Your task to perform on an android device: turn on improve location accuracy Image 0: 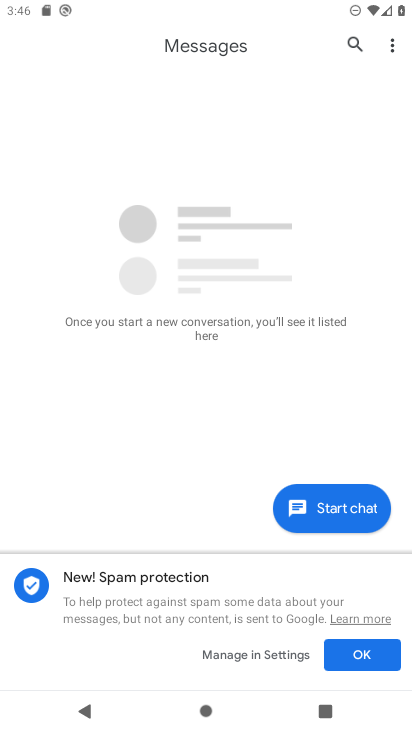
Step 0: press home button
Your task to perform on an android device: turn on improve location accuracy Image 1: 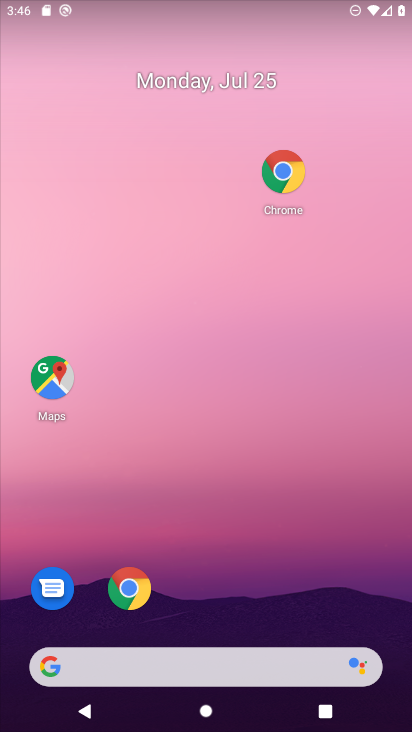
Step 1: drag from (257, 728) to (175, 234)
Your task to perform on an android device: turn on improve location accuracy Image 2: 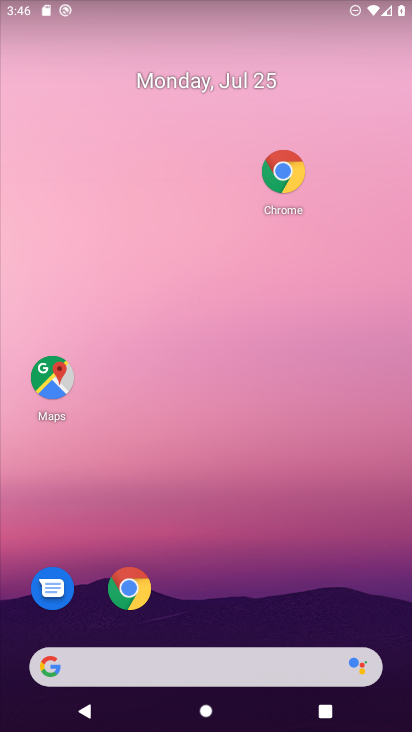
Step 2: drag from (253, 659) to (193, 187)
Your task to perform on an android device: turn on improve location accuracy Image 3: 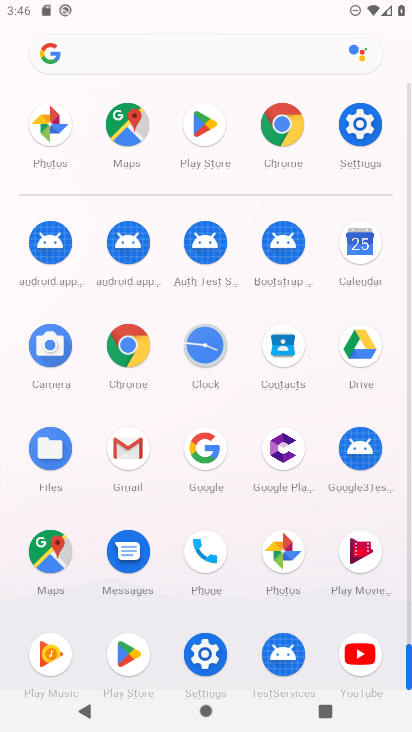
Step 3: click (347, 123)
Your task to perform on an android device: turn on improve location accuracy Image 4: 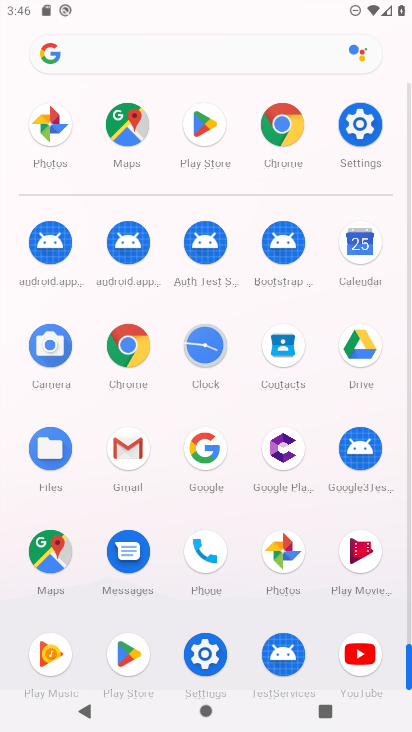
Step 4: click (347, 123)
Your task to perform on an android device: turn on improve location accuracy Image 5: 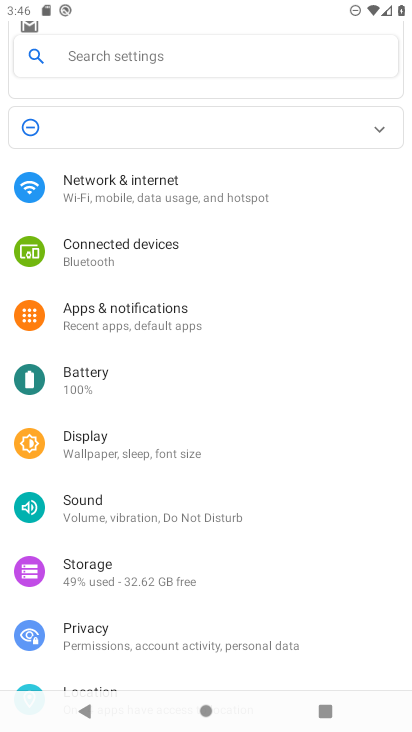
Step 5: drag from (190, 565) to (202, 138)
Your task to perform on an android device: turn on improve location accuracy Image 6: 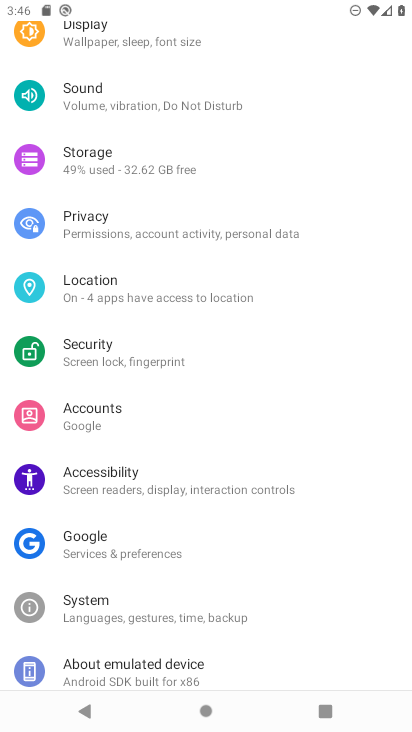
Step 6: drag from (202, 598) to (202, 251)
Your task to perform on an android device: turn on improve location accuracy Image 7: 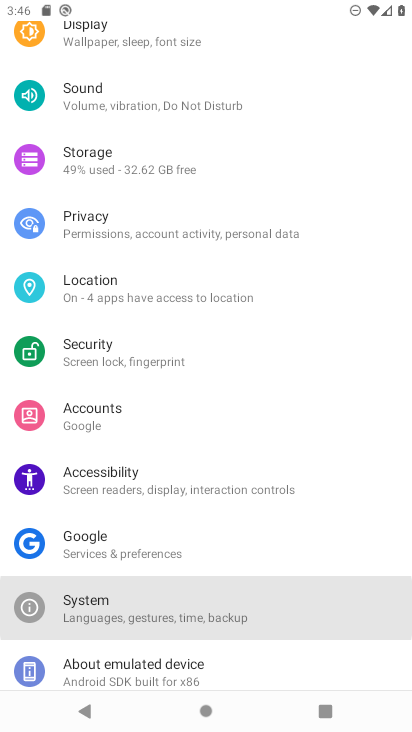
Step 7: drag from (253, 657) to (216, 318)
Your task to perform on an android device: turn on improve location accuracy Image 8: 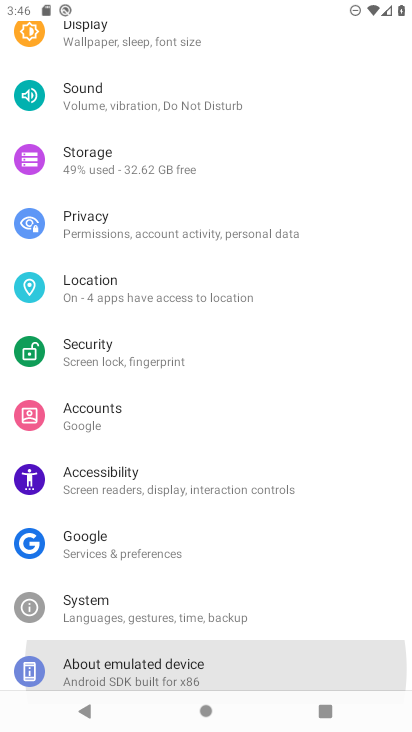
Step 8: drag from (196, 655) to (168, 156)
Your task to perform on an android device: turn on improve location accuracy Image 9: 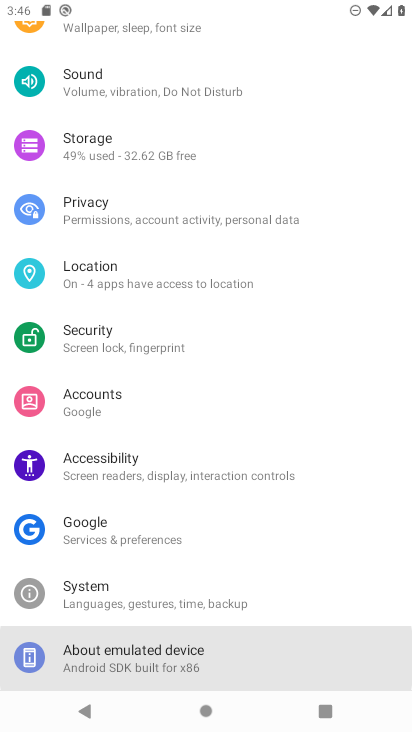
Step 9: drag from (151, 525) to (117, 237)
Your task to perform on an android device: turn on improve location accuracy Image 10: 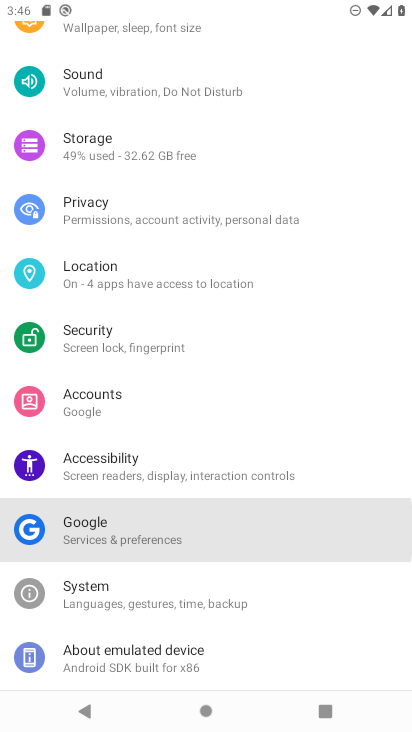
Step 10: drag from (130, 437) to (142, 376)
Your task to perform on an android device: turn on improve location accuracy Image 11: 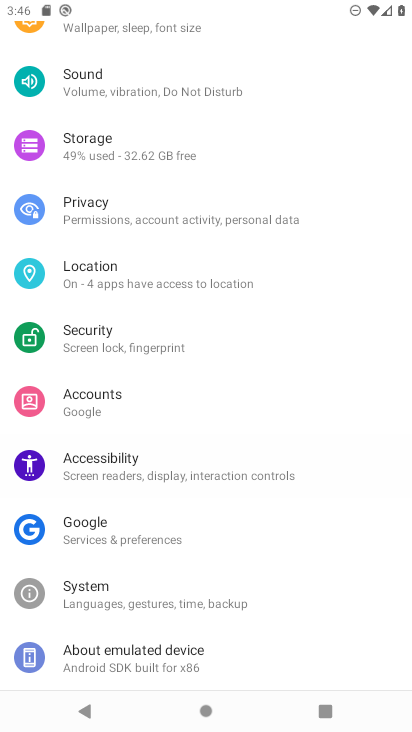
Step 11: click (113, 265)
Your task to perform on an android device: turn on improve location accuracy Image 12: 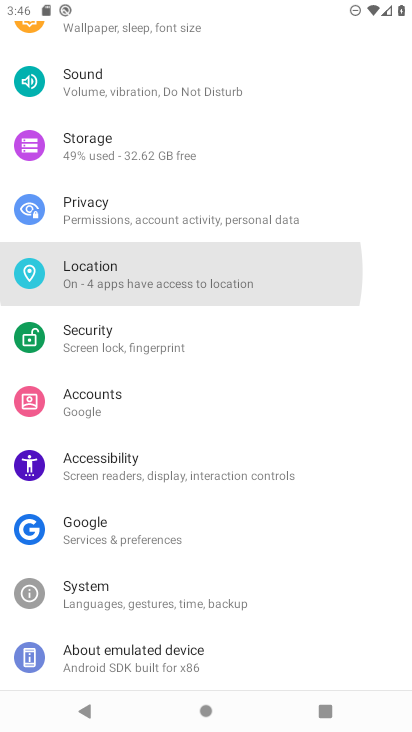
Step 12: click (109, 269)
Your task to perform on an android device: turn on improve location accuracy Image 13: 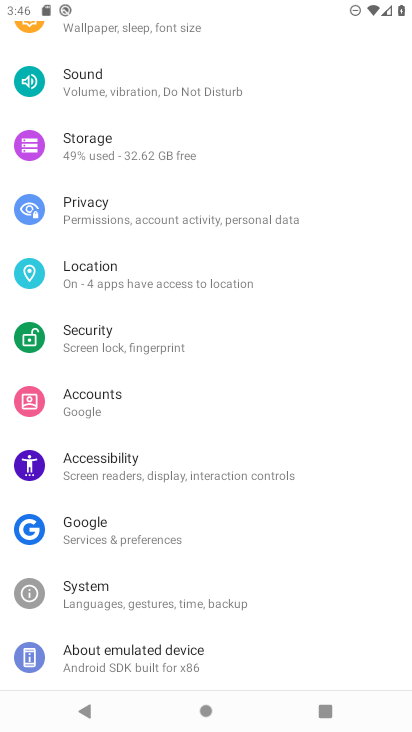
Step 13: click (87, 271)
Your task to perform on an android device: turn on improve location accuracy Image 14: 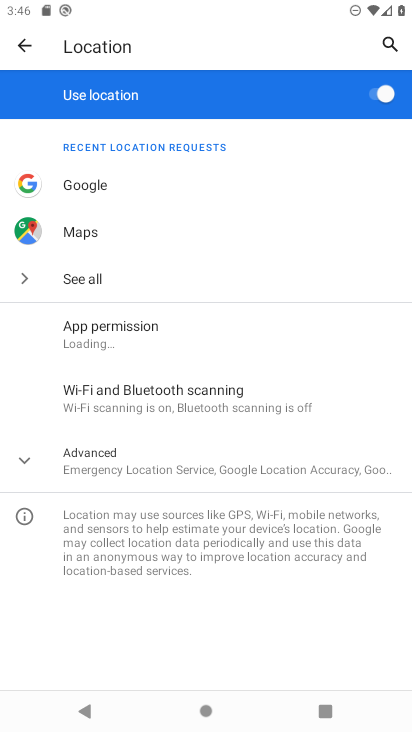
Step 14: click (156, 451)
Your task to perform on an android device: turn on improve location accuracy Image 15: 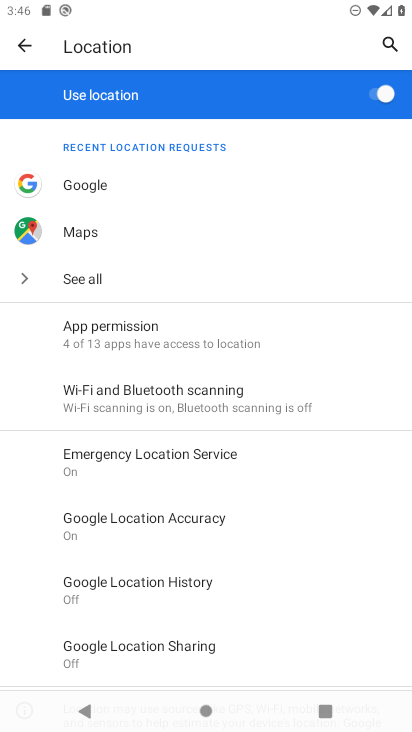
Step 15: click (158, 528)
Your task to perform on an android device: turn on improve location accuracy Image 16: 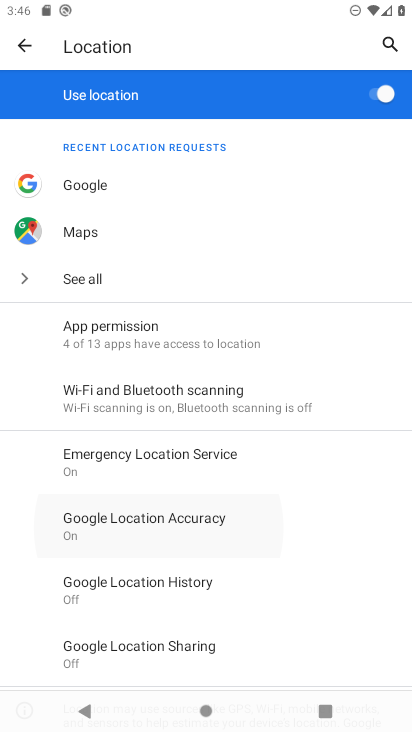
Step 16: click (165, 517)
Your task to perform on an android device: turn on improve location accuracy Image 17: 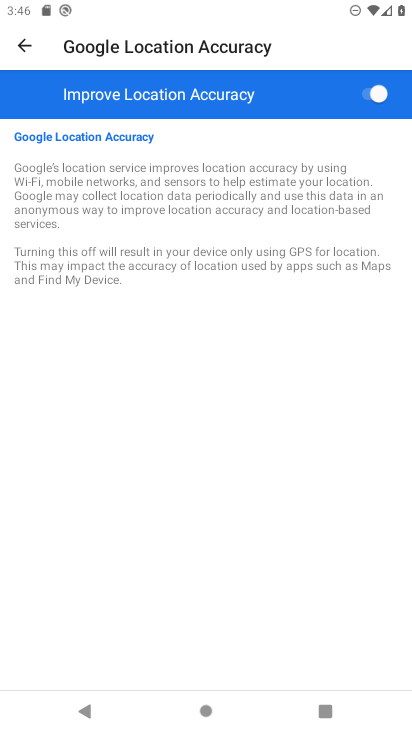
Step 17: task complete